Your task to perform on an android device: open chrome and create a bookmark for the current page Image 0: 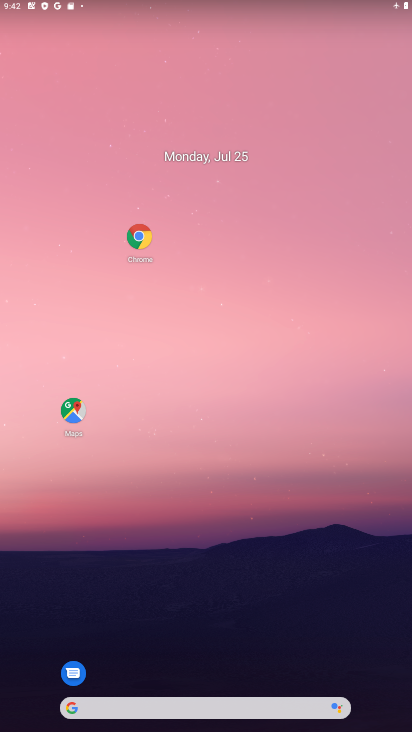
Step 0: click (151, 233)
Your task to perform on an android device: open chrome and create a bookmark for the current page Image 1: 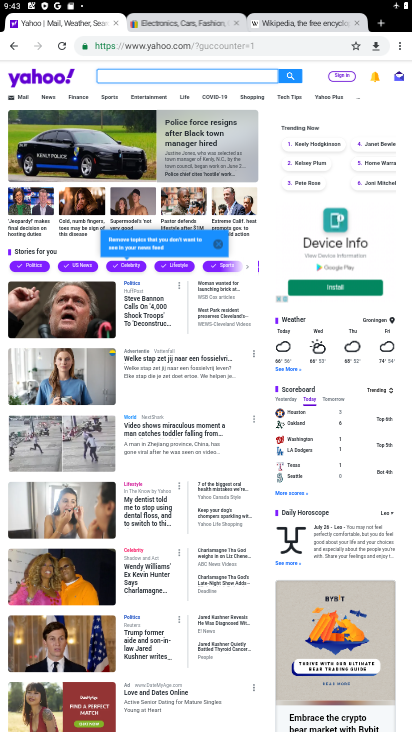
Step 1: click (399, 44)
Your task to perform on an android device: open chrome and create a bookmark for the current page Image 2: 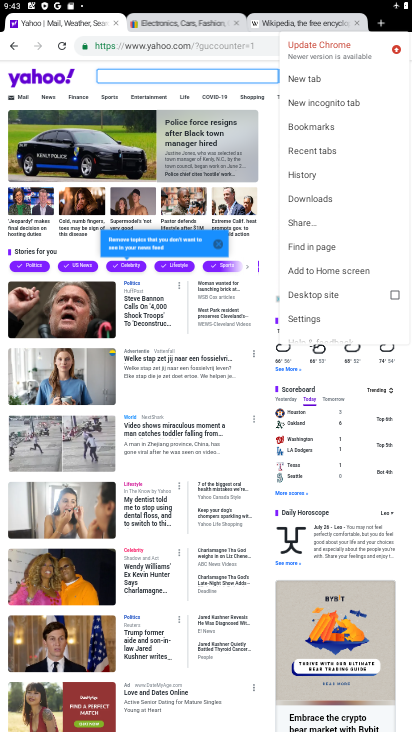
Step 2: task complete